Your task to perform on an android device: Search for vegetarian restaurants on Maps Image 0: 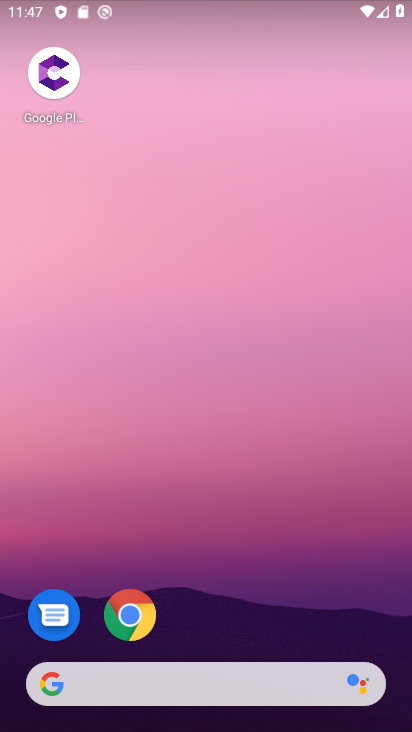
Step 0: drag from (237, 645) to (187, 177)
Your task to perform on an android device: Search for vegetarian restaurants on Maps Image 1: 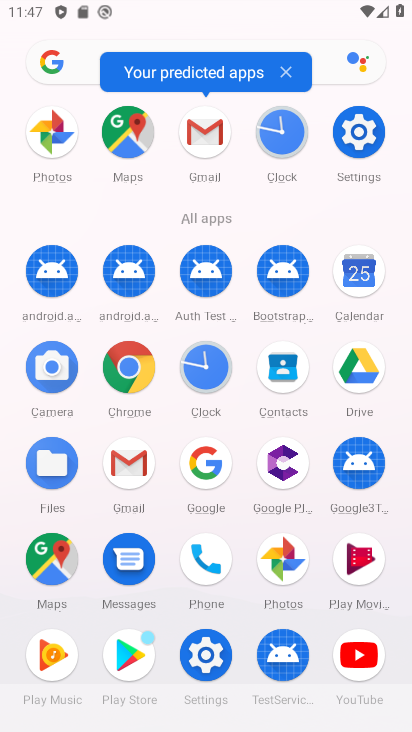
Step 1: click (148, 140)
Your task to perform on an android device: Search for vegetarian restaurants on Maps Image 2: 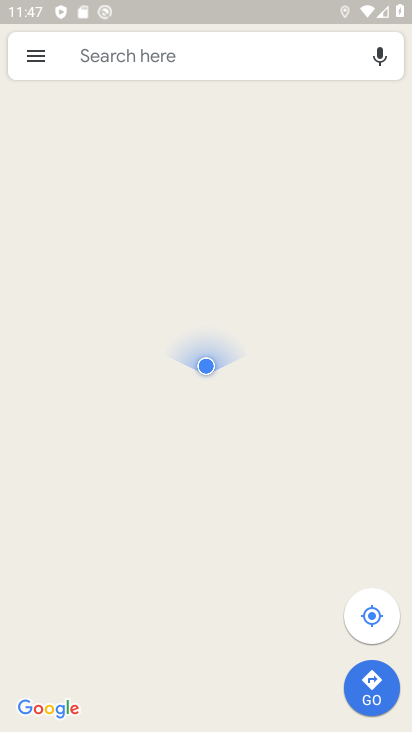
Step 2: click (203, 71)
Your task to perform on an android device: Search for vegetarian restaurants on Maps Image 3: 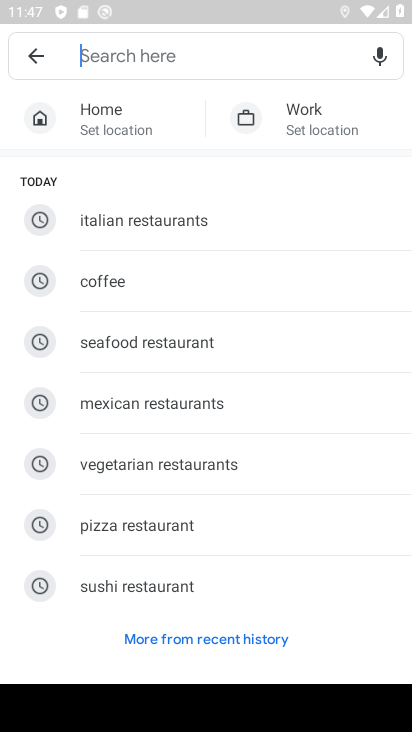
Step 3: click (208, 468)
Your task to perform on an android device: Search for vegetarian restaurants on Maps Image 4: 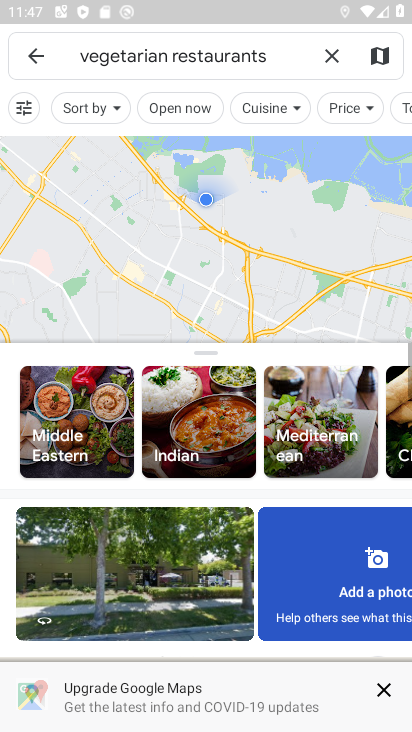
Step 4: task complete